Your task to perform on an android device: change the clock display to show seconds Image 0: 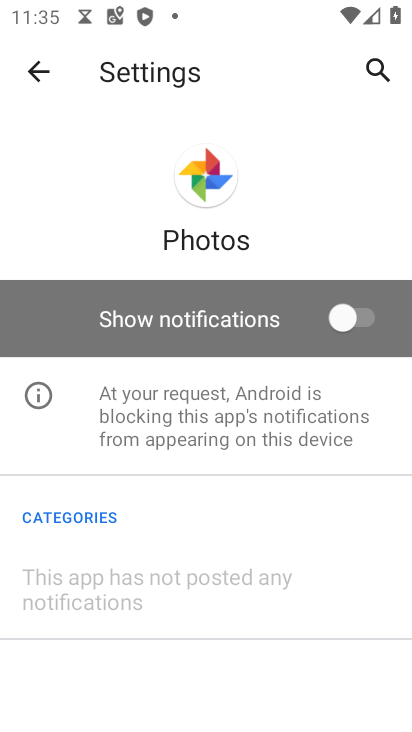
Step 0: press home button
Your task to perform on an android device: change the clock display to show seconds Image 1: 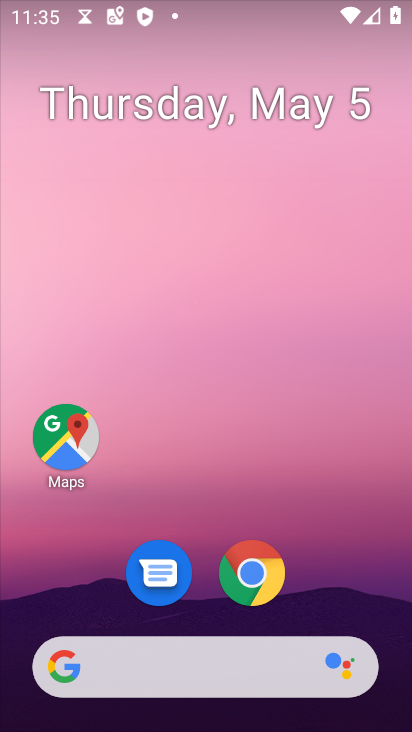
Step 1: drag from (320, 612) to (304, 256)
Your task to perform on an android device: change the clock display to show seconds Image 2: 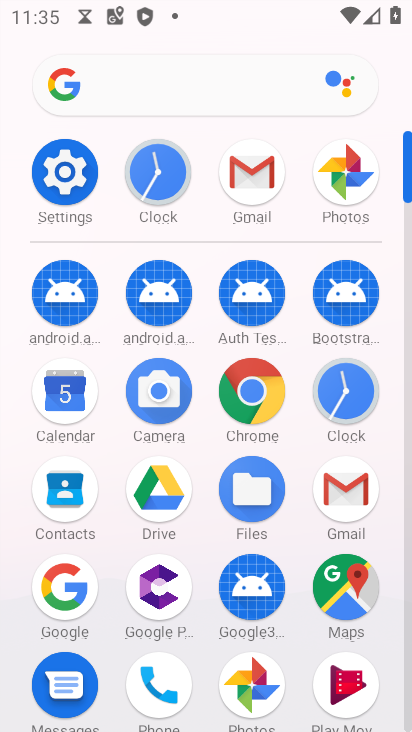
Step 2: click (349, 388)
Your task to perform on an android device: change the clock display to show seconds Image 3: 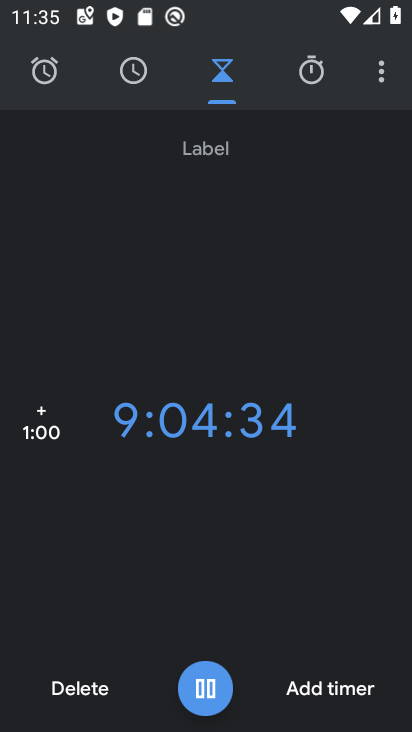
Step 3: click (378, 85)
Your task to perform on an android device: change the clock display to show seconds Image 4: 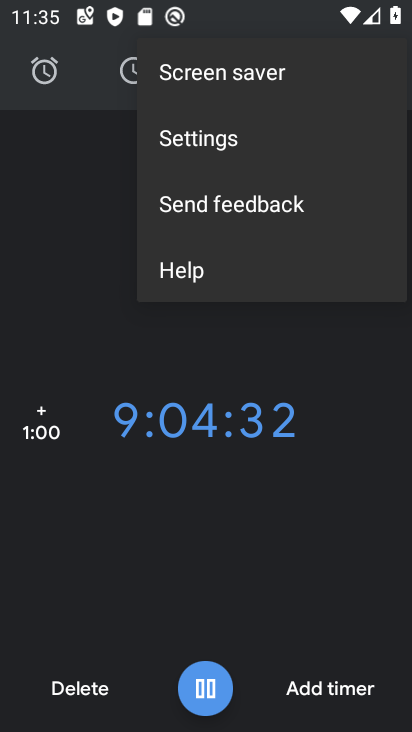
Step 4: click (273, 137)
Your task to perform on an android device: change the clock display to show seconds Image 5: 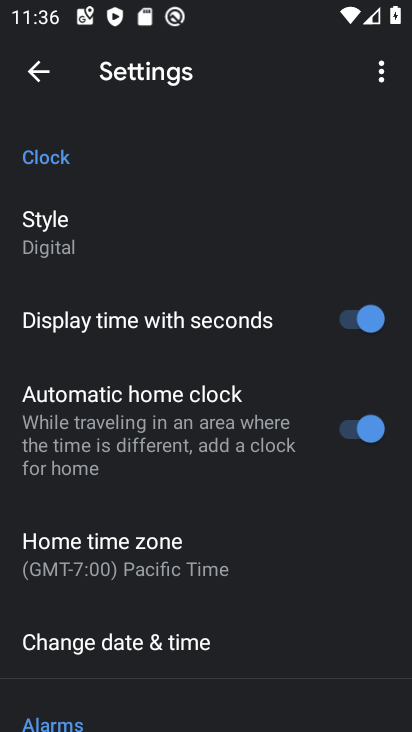
Step 5: task complete